Your task to perform on an android device: Is it going to rain this weekend? Image 0: 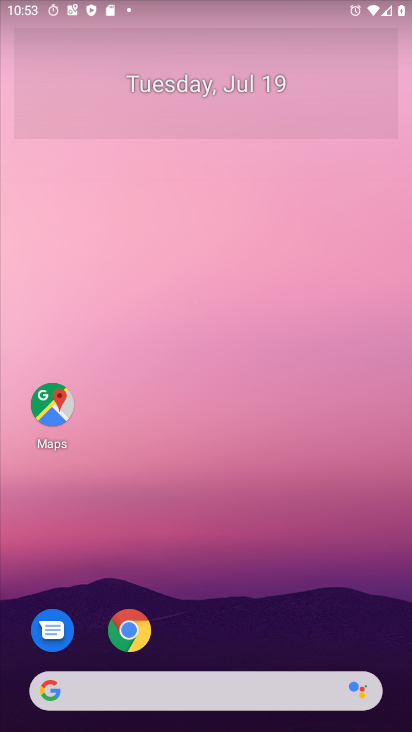
Step 0: click (51, 696)
Your task to perform on an android device: Is it going to rain this weekend? Image 1: 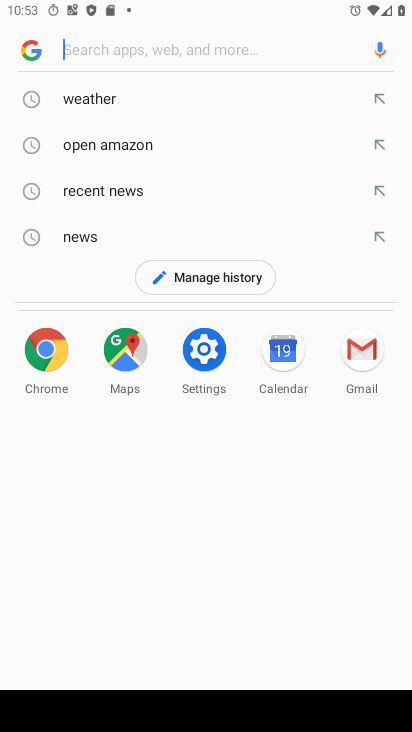
Step 1: type "Is it going to rain this weekend?"
Your task to perform on an android device: Is it going to rain this weekend? Image 2: 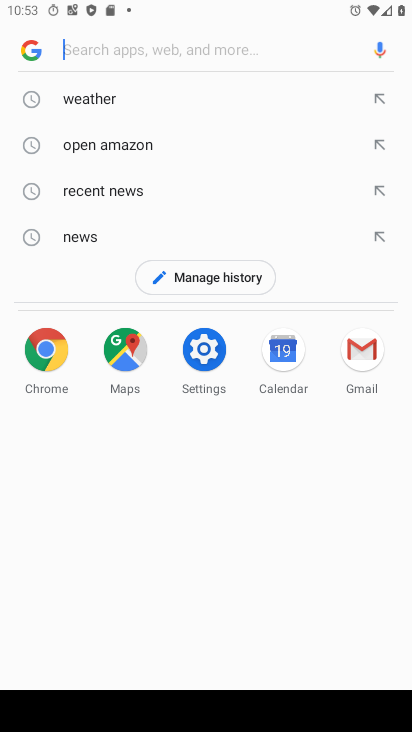
Step 2: click (89, 48)
Your task to perform on an android device: Is it going to rain this weekend? Image 3: 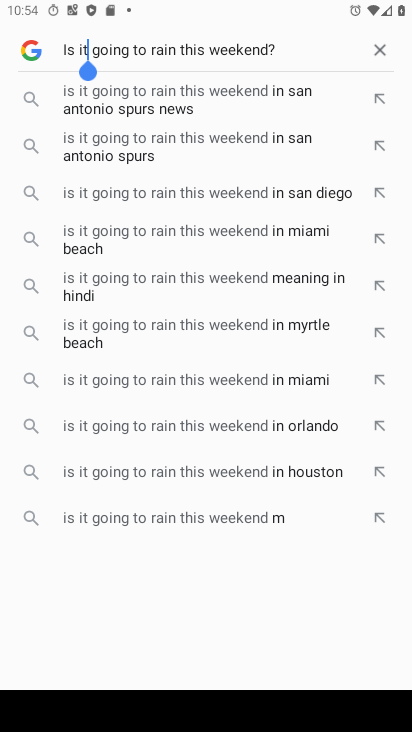
Step 3: press enter
Your task to perform on an android device: Is it going to rain this weekend? Image 4: 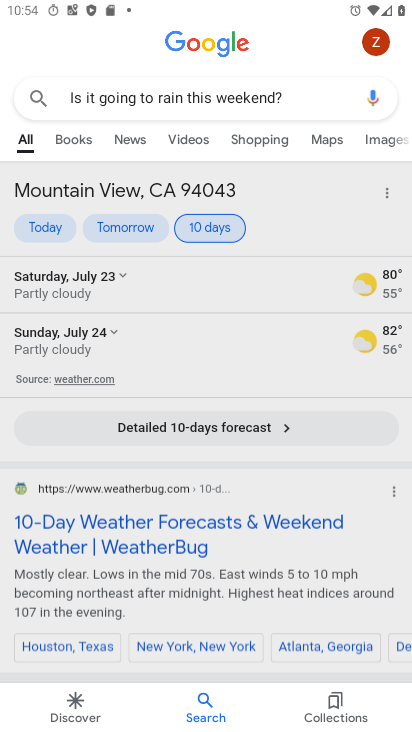
Step 4: task complete